Your task to perform on an android device: What's on my calendar tomorrow? Image 0: 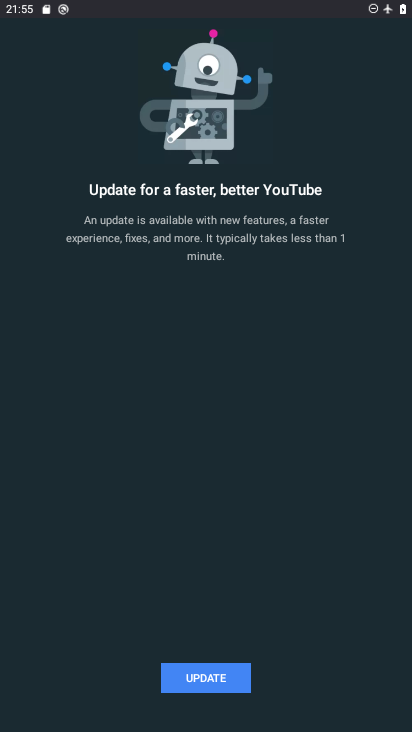
Step 0: press home button
Your task to perform on an android device: What's on my calendar tomorrow? Image 1: 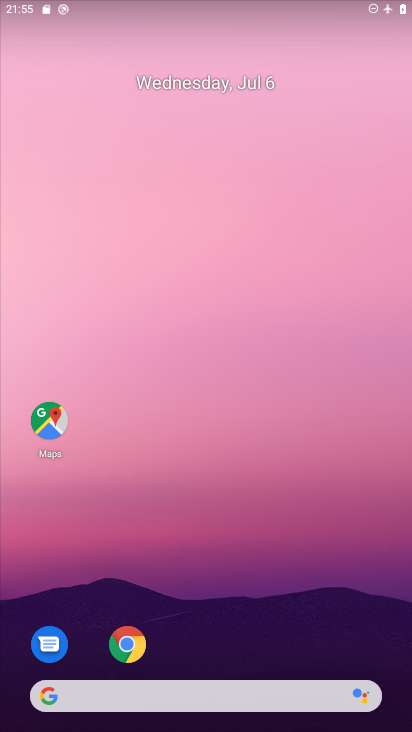
Step 1: drag from (236, 647) to (214, 142)
Your task to perform on an android device: What's on my calendar tomorrow? Image 2: 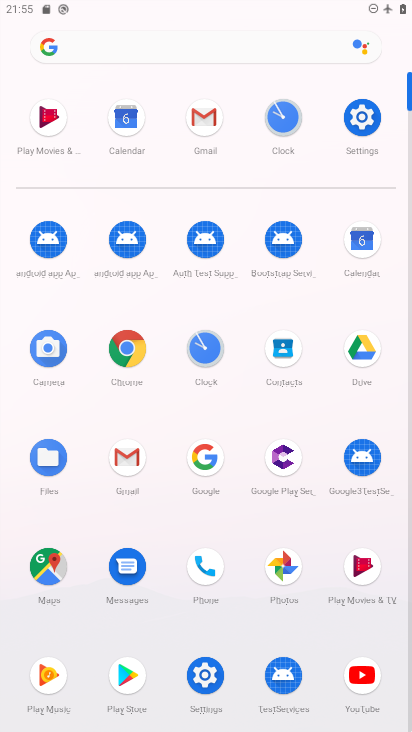
Step 2: click (372, 242)
Your task to perform on an android device: What's on my calendar tomorrow? Image 3: 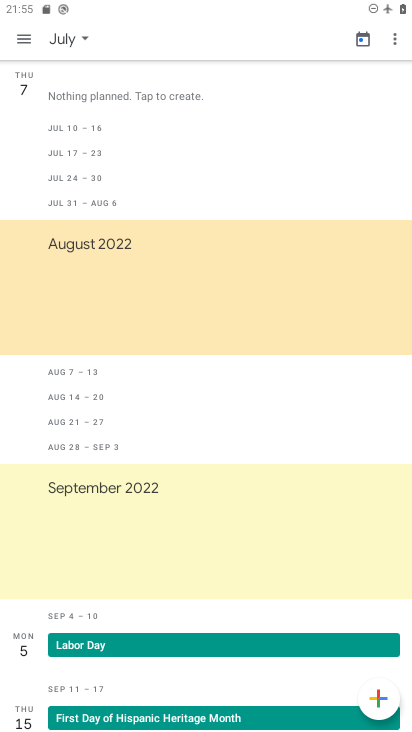
Step 3: click (80, 44)
Your task to perform on an android device: What's on my calendar tomorrow? Image 4: 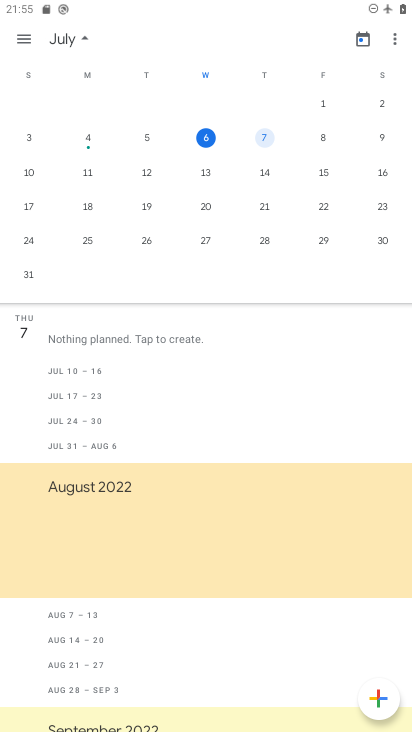
Step 4: click (263, 134)
Your task to perform on an android device: What's on my calendar tomorrow? Image 5: 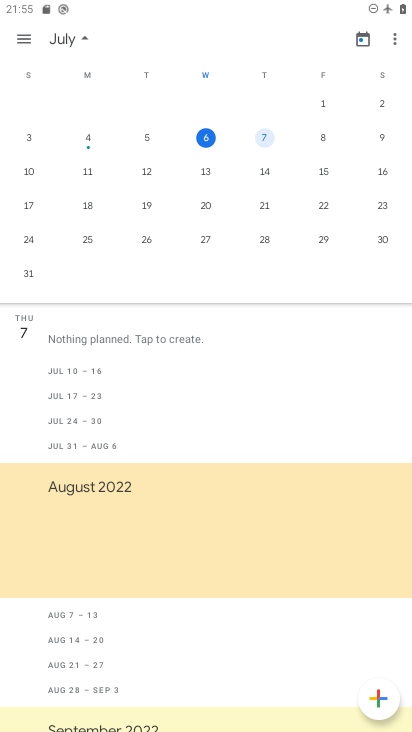
Step 5: task complete